Your task to perform on an android device: Turn on the flashlight Image 0: 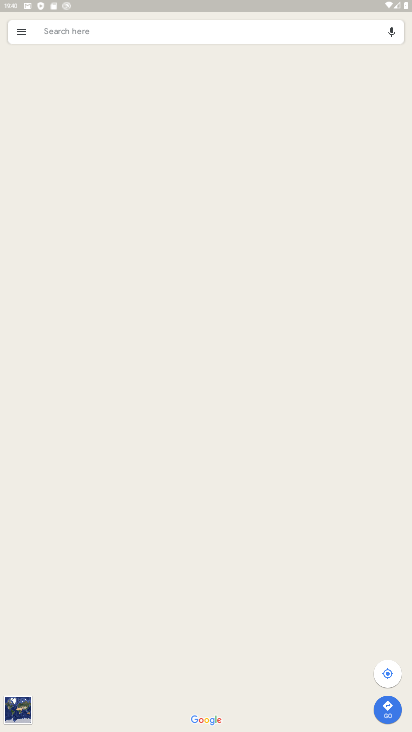
Step 0: press home button
Your task to perform on an android device: Turn on the flashlight Image 1: 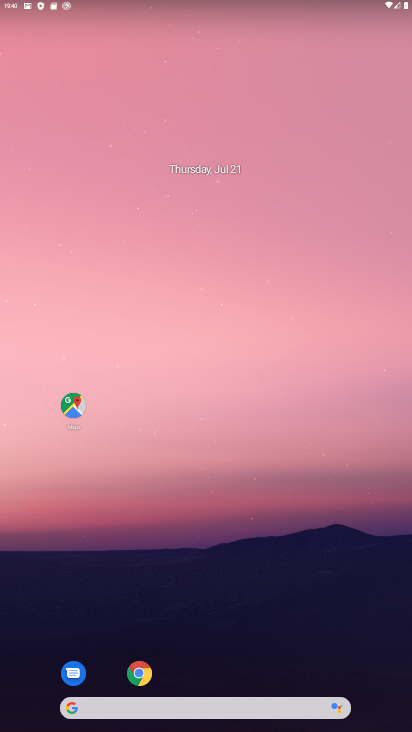
Step 1: drag from (277, 664) to (266, 205)
Your task to perform on an android device: Turn on the flashlight Image 2: 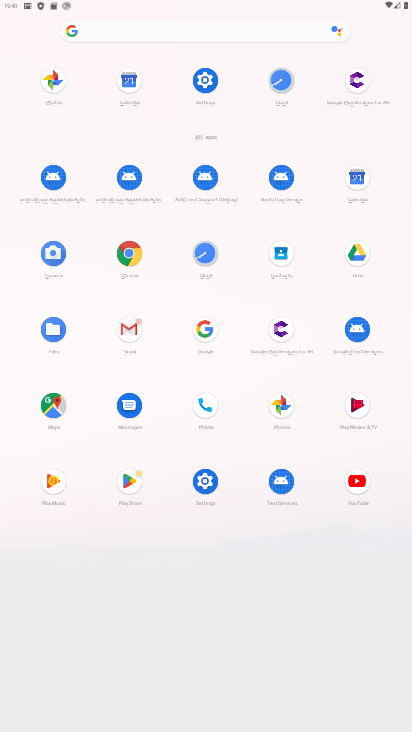
Step 2: click (204, 84)
Your task to perform on an android device: Turn on the flashlight Image 3: 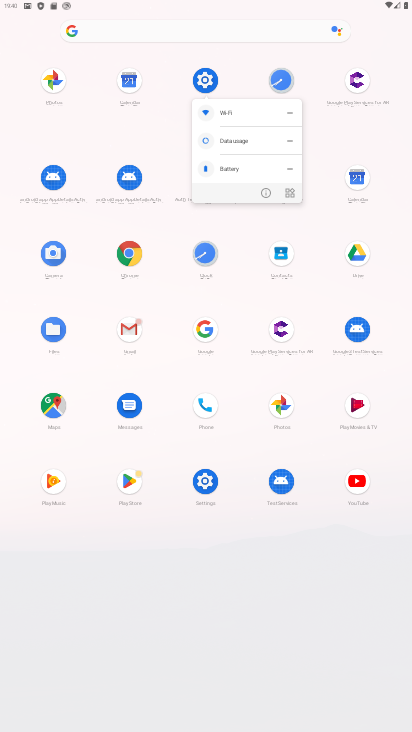
Step 3: click (204, 84)
Your task to perform on an android device: Turn on the flashlight Image 4: 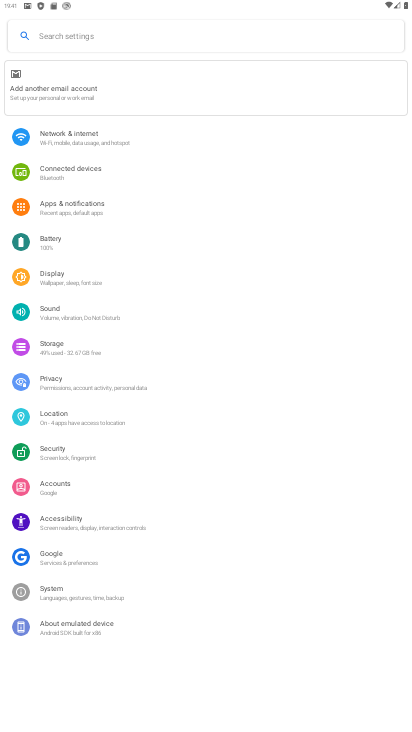
Step 4: click (56, 283)
Your task to perform on an android device: Turn on the flashlight Image 5: 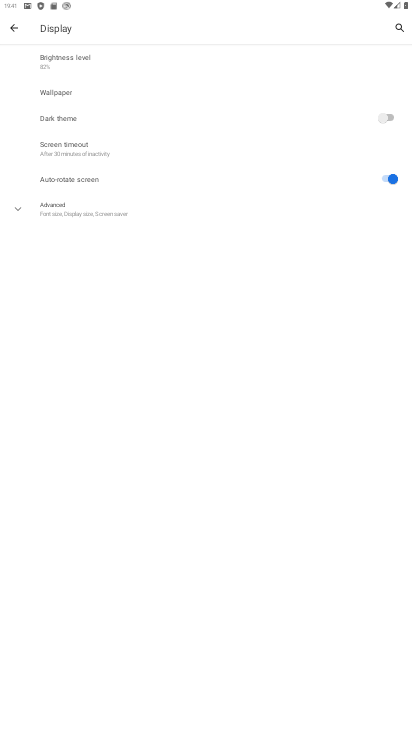
Step 5: task complete